Your task to perform on an android device: Turn off the flashlight Image 0: 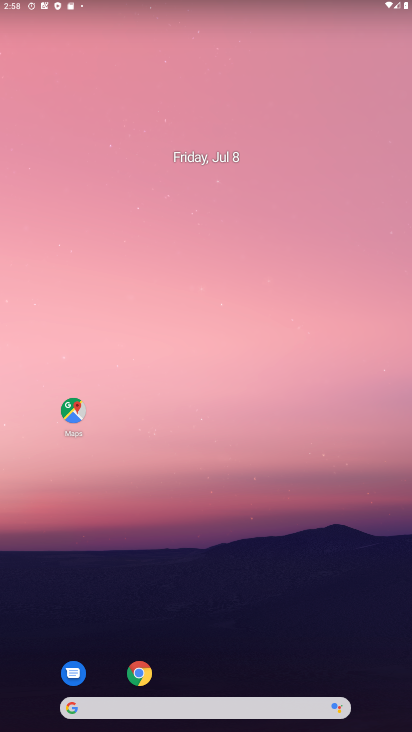
Step 0: drag from (233, 7) to (276, 473)
Your task to perform on an android device: Turn off the flashlight Image 1: 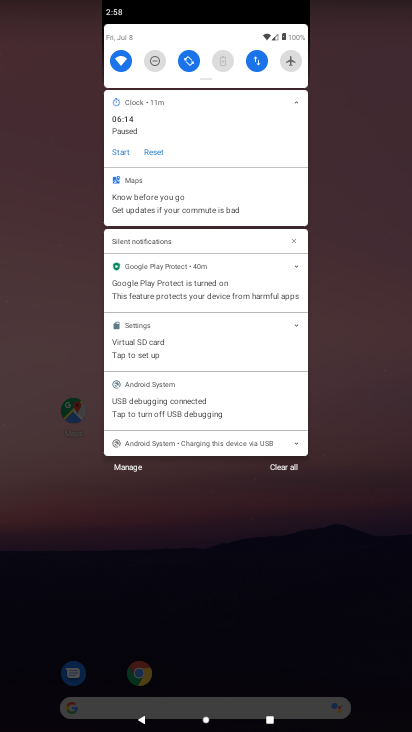
Step 1: drag from (186, 62) to (231, 446)
Your task to perform on an android device: Turn off the flashlight Image 2: 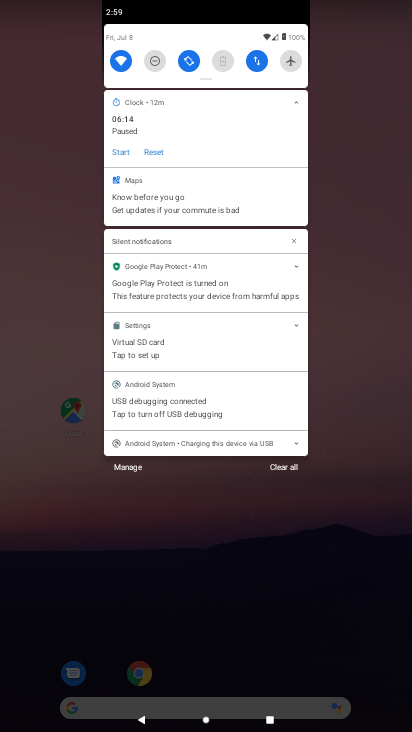
Step 2: drag from (216, 47) to (268, 553)
Your task to perform on an android device: Turn off the flashlight Image 3: 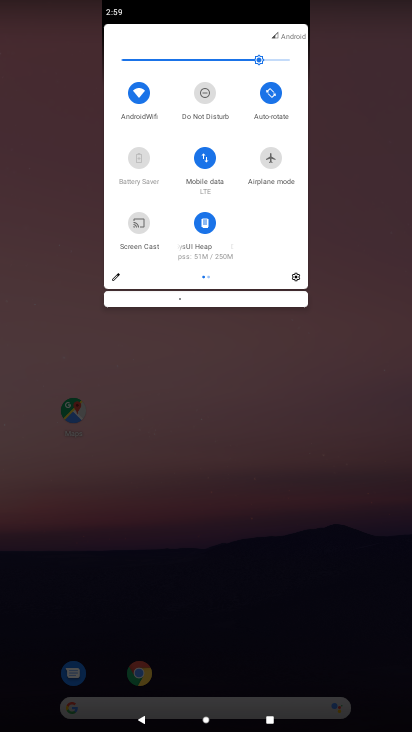
Step 3: drag from (259, 207) to (43, 236)
Your task to perform on an android device: Turn off the flashlight Image 4: 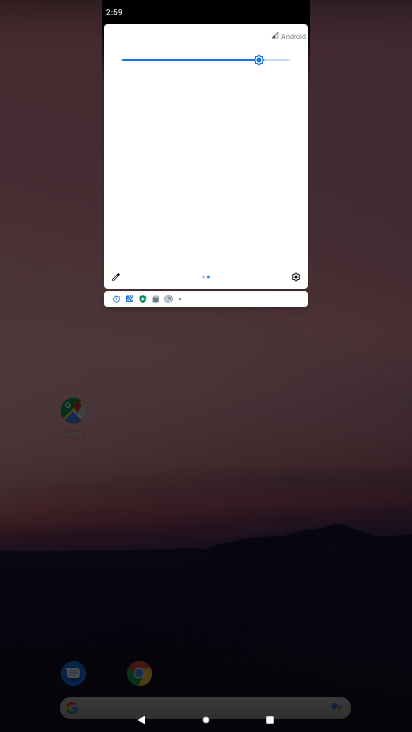
Step 4: click (120, 279)
Your task to perform on an android device: Turn off the flashlight Image 5: 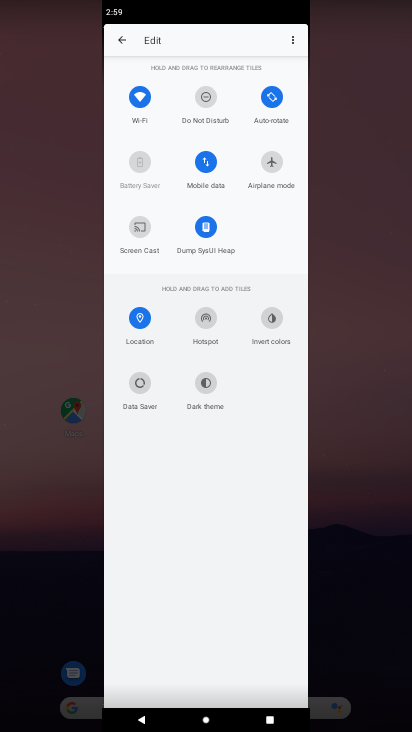
Step 5: task complete